Your task to perform on an android device: Open Chrome and go to the settings page Image 0: 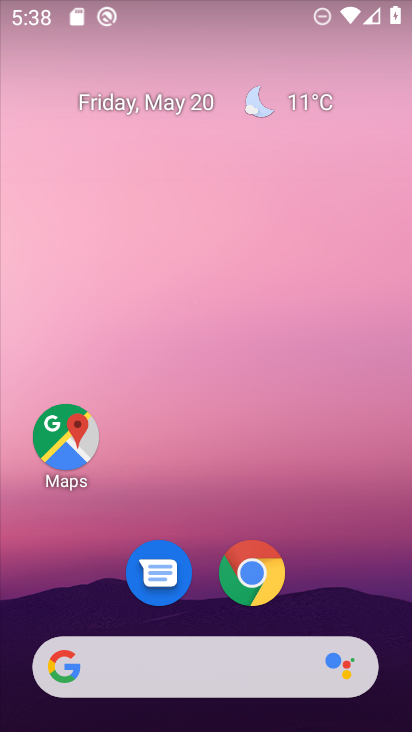
Step 0: drag from (348, 583) to (215, 49)
Your task to perform on an android device: Open Chrome and go to the settings page Image 1: 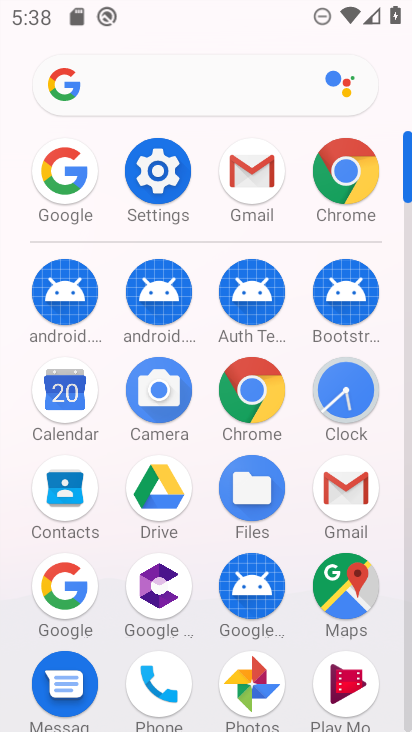
Step 1: click (268, 363)
Your task to perform on an android device: Open Chrome and go to the settings page Image 2: 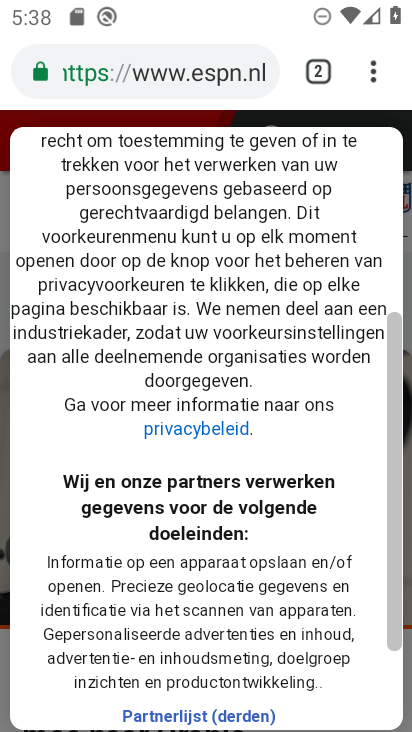
Step 2: click (374, 70)
Your task to perform on an android device: Open Chrome and go to the settings page Image 3: 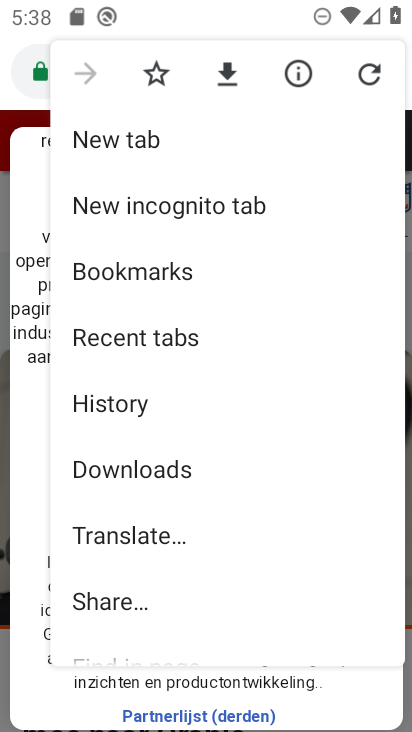
Step 3: drag from (255, 586) to (147, 150)
Your task to perform on an android device: Open Chrome and go to the settings page Image 4: 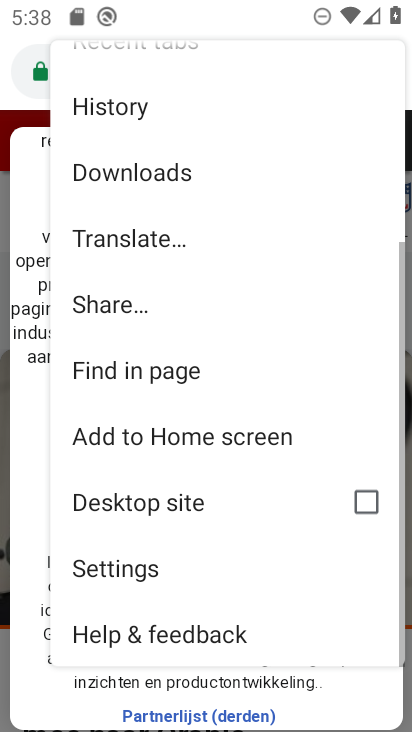
Step 4: click (159, 569)
Your task to perform on an android device: Open Chrome and go to the settings page Image 5: 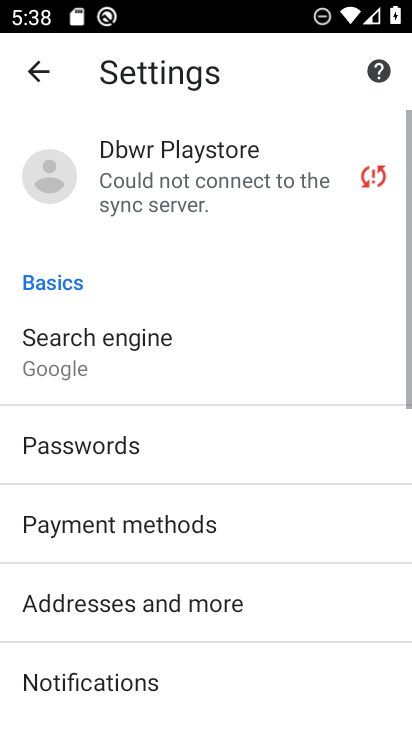
Step 5: task complete